Your task to perform on an android device: Open my contact list Image 0: 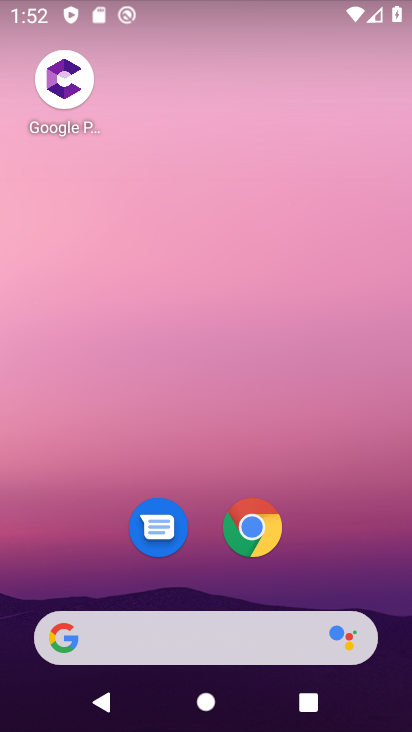
Step 0: drag from (70, 581) to (171, 147)
Your task to perform on an android device: Open my contact list Image 1: 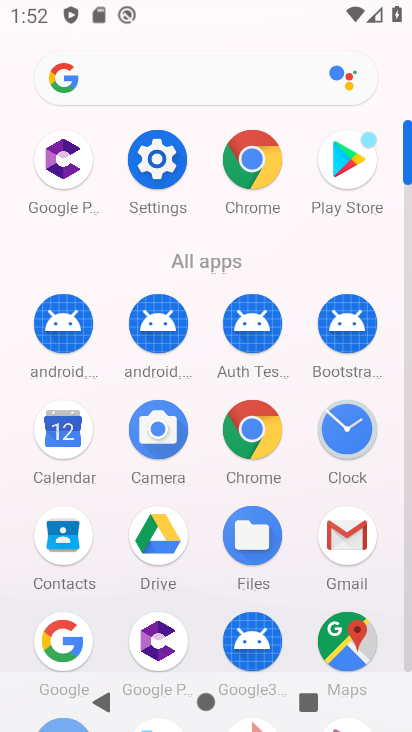
Step 1: click (173, 126)
Your task to perform on an android device: Open my contact list Image 2: 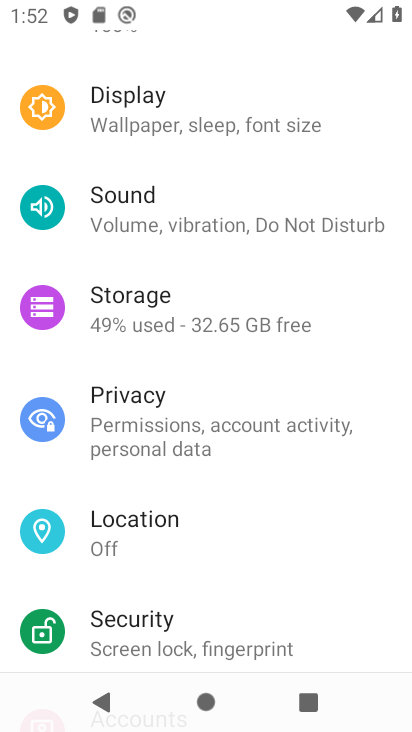
Step 2: press home button
Your task to perform on an android device: Open my contact list Image 3: 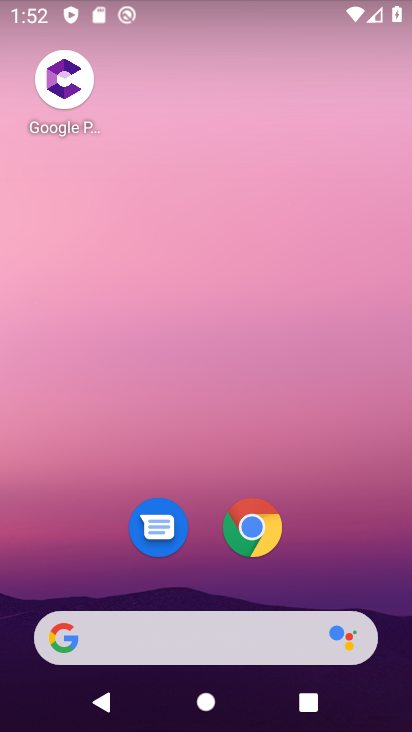
Step 3: drag from (90, 585) to (164, 216)
Your task to perform on an android device: Open my contact list Image 4: 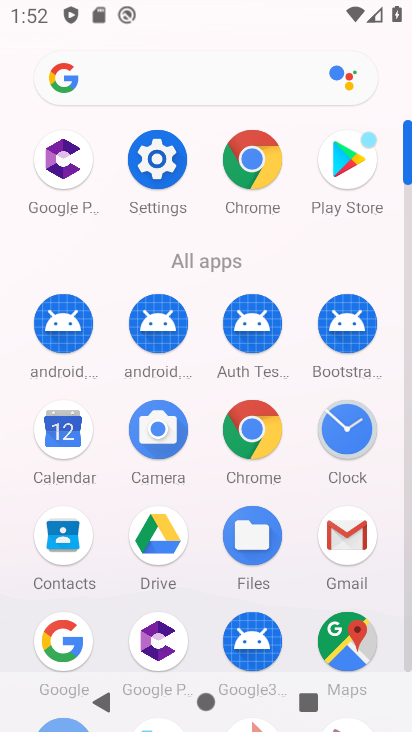
Step 4: drag from (109, 626) to (156, 388)
Your task to perform on an android device: Open my contact list Image 5: 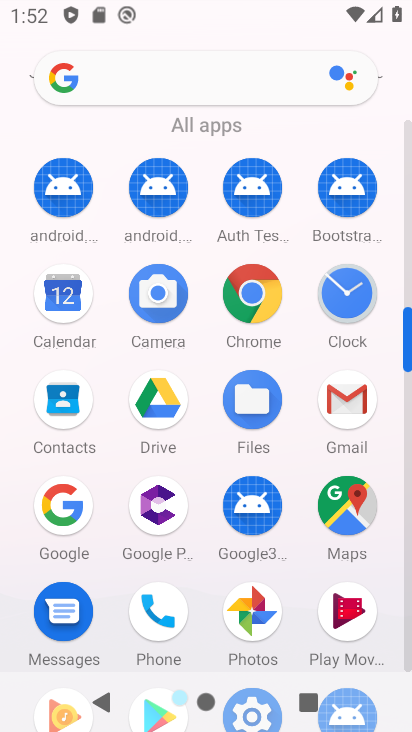
Step 5: drag from (159, 632) to (232, 382)
Your task to perform on an android device: Open my contact list Image 6: 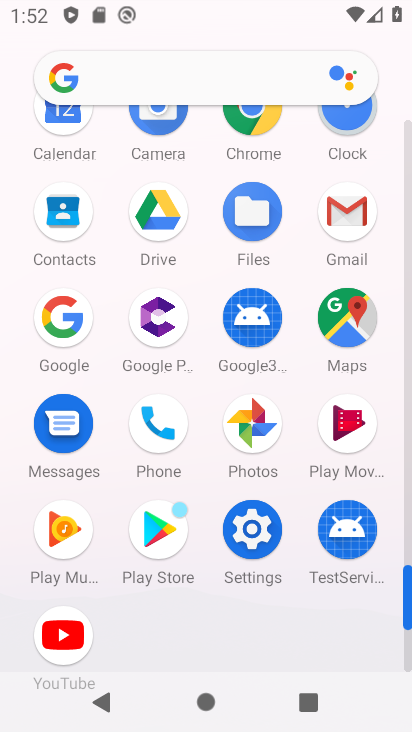
Step 6: click (88, 229)
Your task to perform on an android device: Open my contact list Image 7: 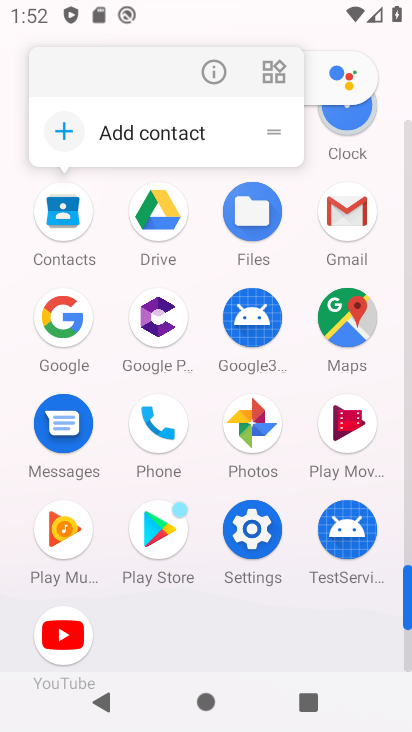
Step 7: click (76, 225)
Your task to perform on an android device: Open my contact list Image 8: 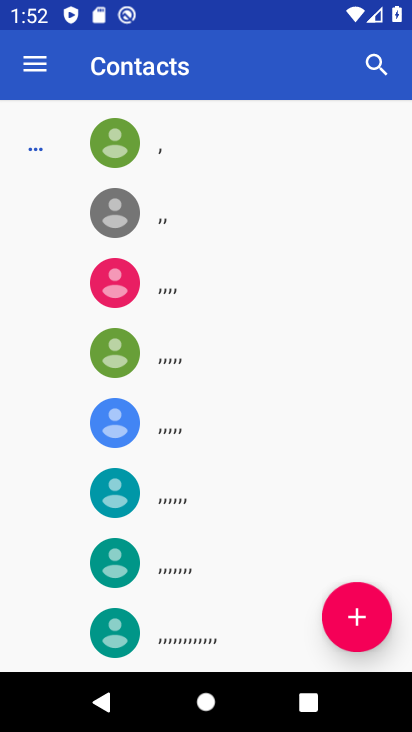
Step 8: task complete